Your task to perform on an android device: turn on notifications settings in the gmail app Image 0: 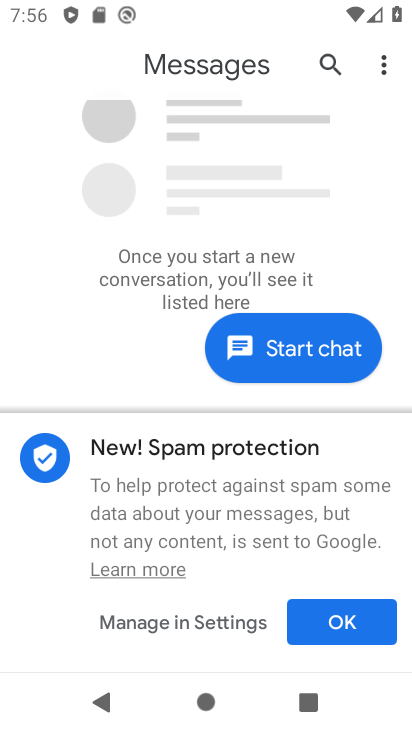
Step 0: press home button
Your task to perform on an android device: turn on notifications settings in the gmail app Image 1: 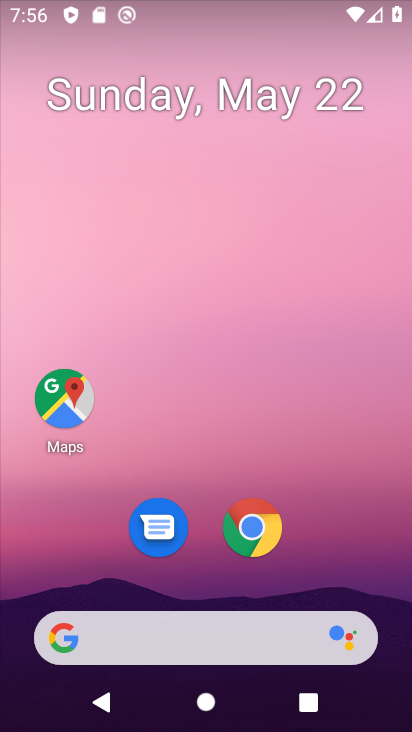
Step 1: drag from (350, 553) to (399, 78)
Your task to perform on an android device: turn on notifications settings in the gmail app Image 2: 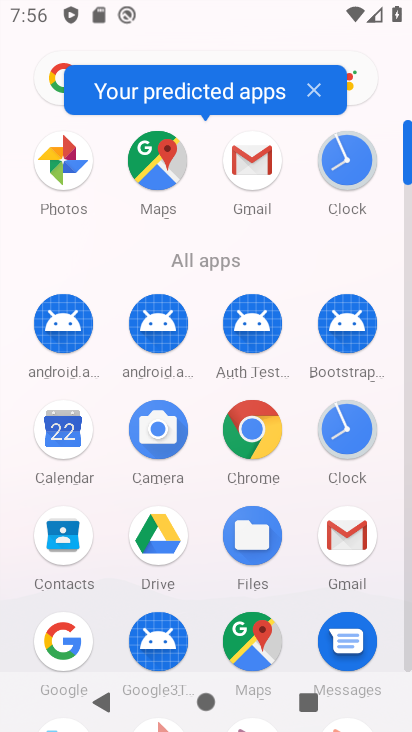
Step 2: drag from (249, 166) to (75, 153)
Your task to perform on an android device: turn on notifications settings in the gmail app Image 3: 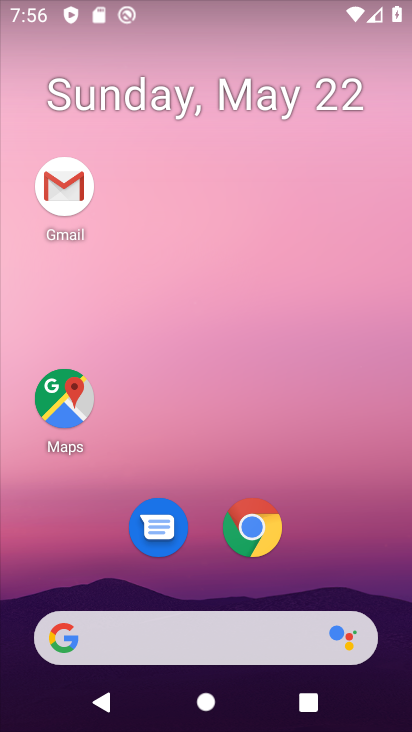
Step 3: click (64, 178)
Your task to perform on an android device: turn on notifications settings in the gmail app Image 4: 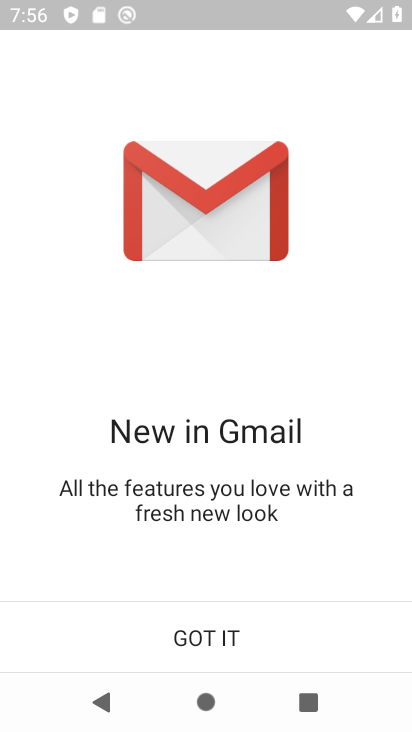
Step 4: click (226, 627)
Your task to perform on an android device: turn on notifications settings in the gmail app Image 5: 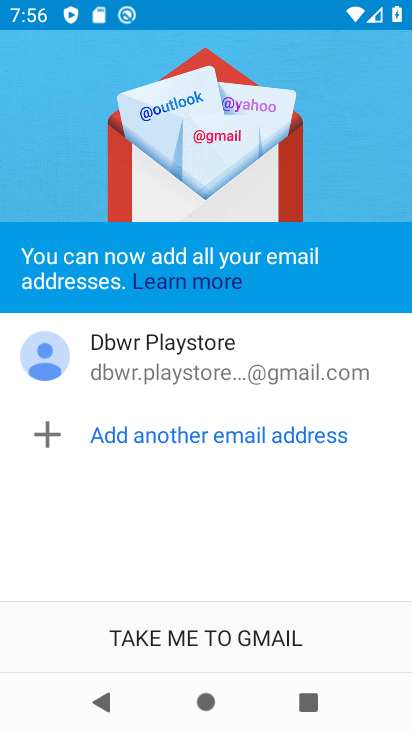
Step 5: click (226, 627)
Your task to perform on an android device: turn on notifications settings in the gmail app Image 6: 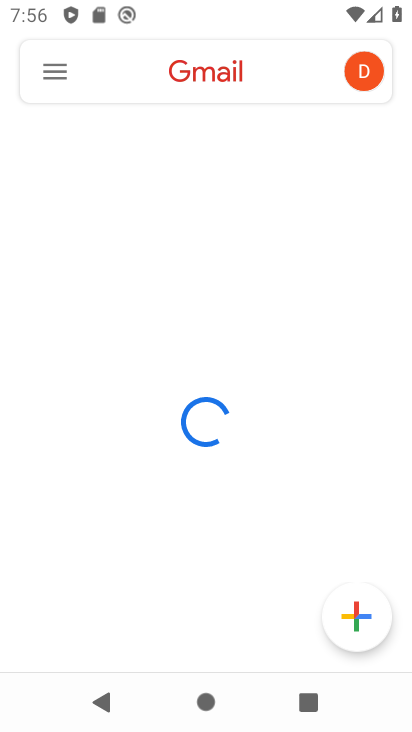
Step 6: click (60, 85)
Your task to perform on an android device: turn on notifications settings in the gmail app Image 7: 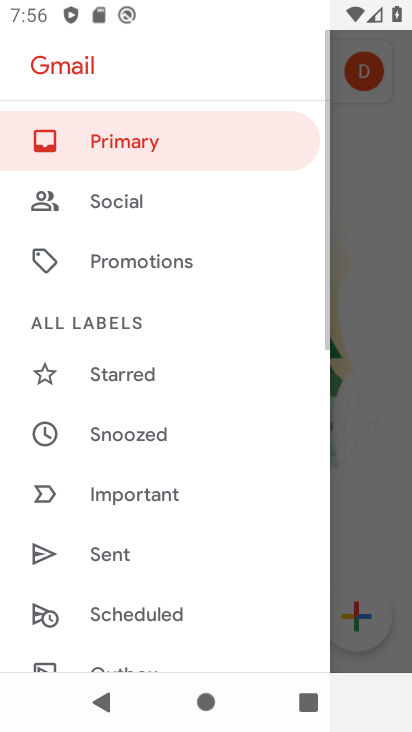
Step 7: drag from (169, 507) to (181, 129)
Your task to perform on an android device: turn on notifications settings in the gmail app Image 8: 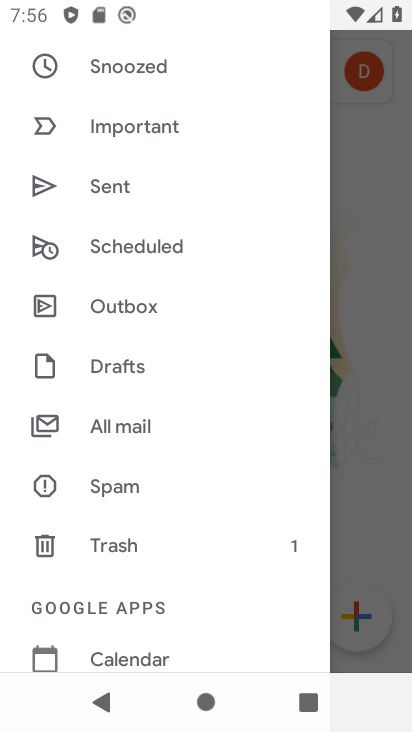
Step 8: drag from (123, 561) to (168, 189)
Your task to perform on an android device: turn on notifications settings in the gmail app Image 9: 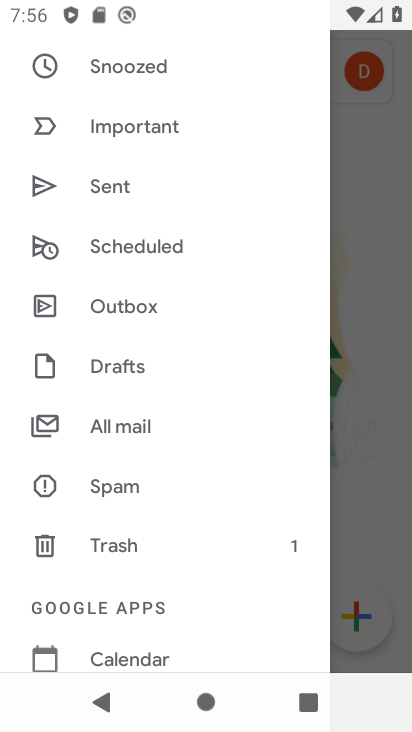
Step 9: drag from (223, 612) to (257, 268)
Your task to perform on an android device: turn on notifications settings in the gmail app Image 10: 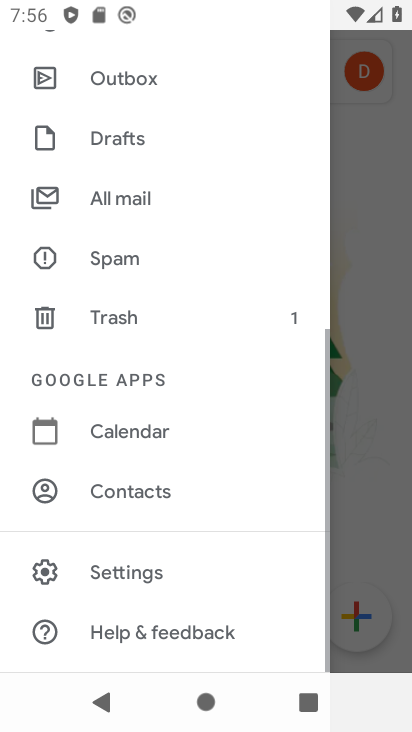
Step 10: click (152, 568)
Your task to perform on an android device: turn on notifications settings in the gmail app Image 11: 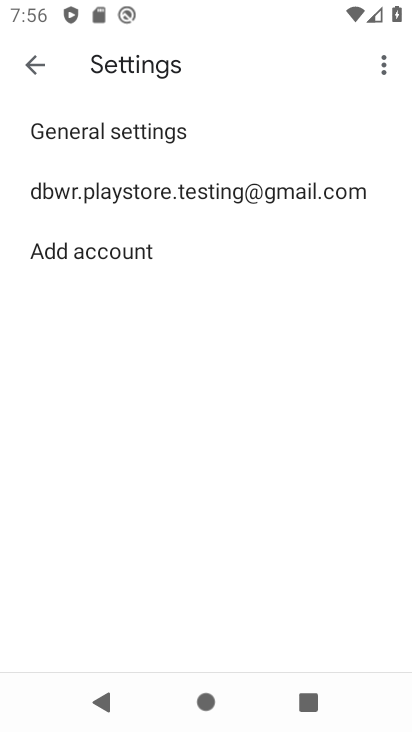
Step 11: click (165, 189)
Your task to perform on an android device: turn on notifications settings in the gmail app Image 12: 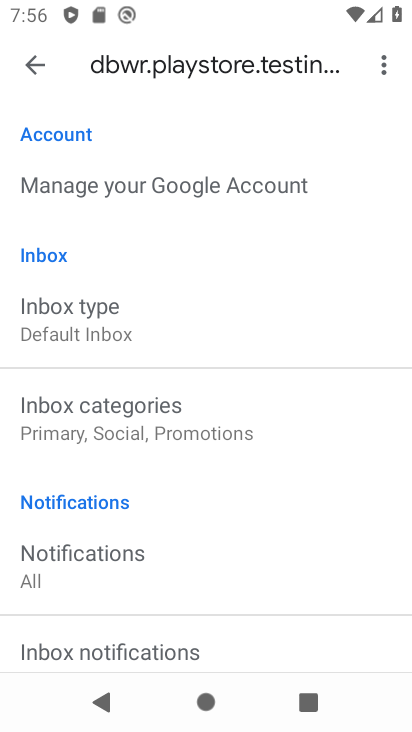
Step 12: click (129, 549)
Your task to perform on an android device: turn on notifications settings in the gmail app Image 13: 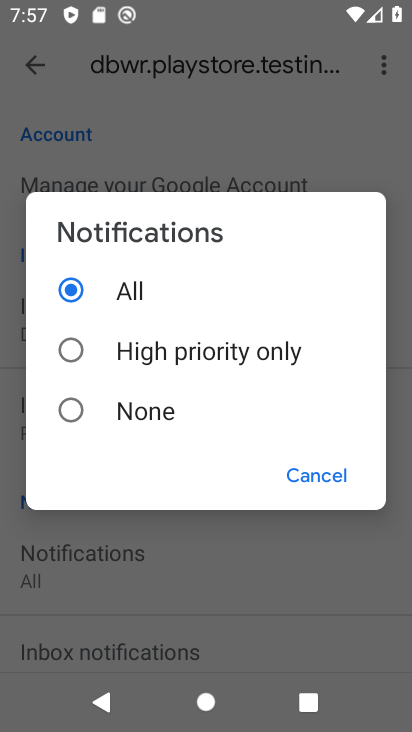
Step 13: task complete